Your task to perform on an android device: turn off sleep mode Image 0: 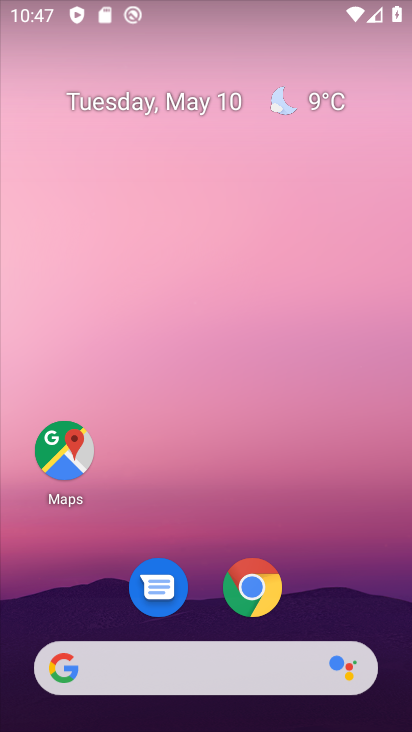
Step 0: drag from (363, 602) to (366, 0)
Your task to perform on an android device: turn off sleep mode Image 1: 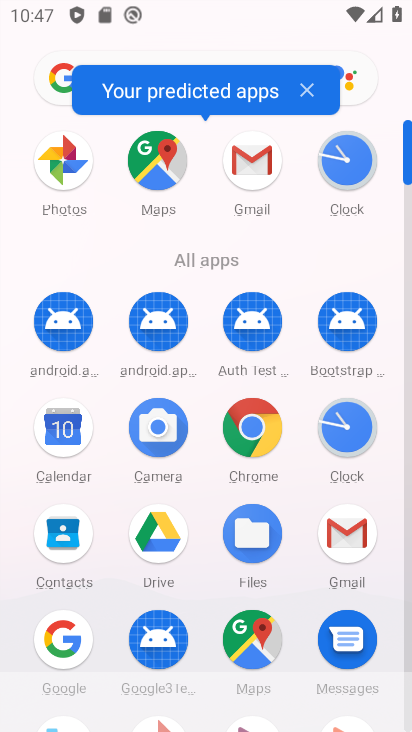
Step 1: click (412, 541)
Your task to perform on an android device: turn off sleep mode Image 2: 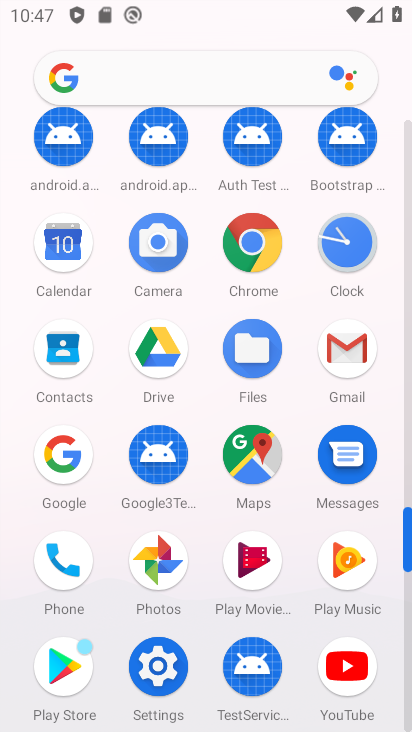
Step 2: click (165, 668)
Your task to perform on an android device: turn off sleep mode Image 3: 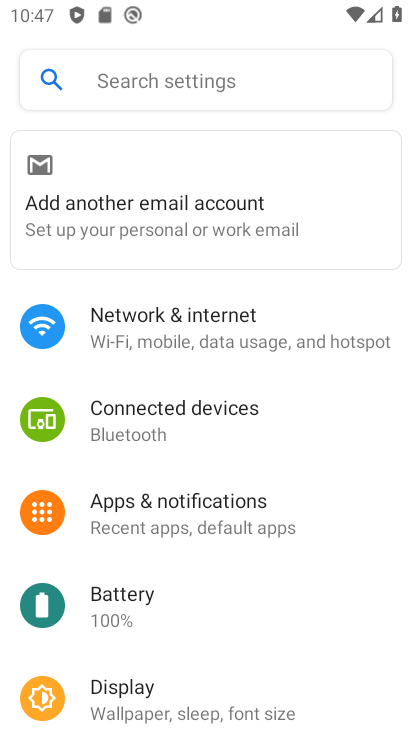
Step 3: click (105, 687)
Your task to perform on an android device: turn off sleep mode Image 4: 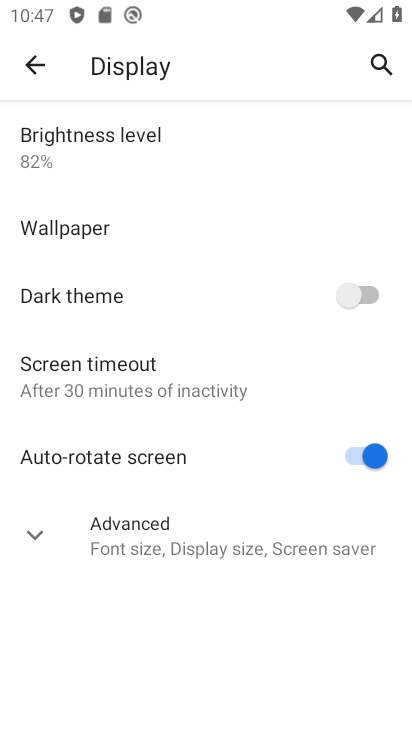
Step 4: click (35, 538)
Your task to perform on an android device: turn off sleep mode Image 5: 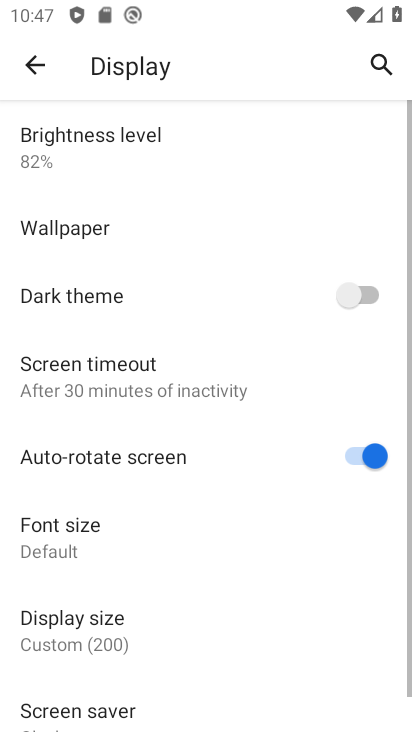
Step 5: task complete